Your task to perform on an android device: turn on location history Image 0: 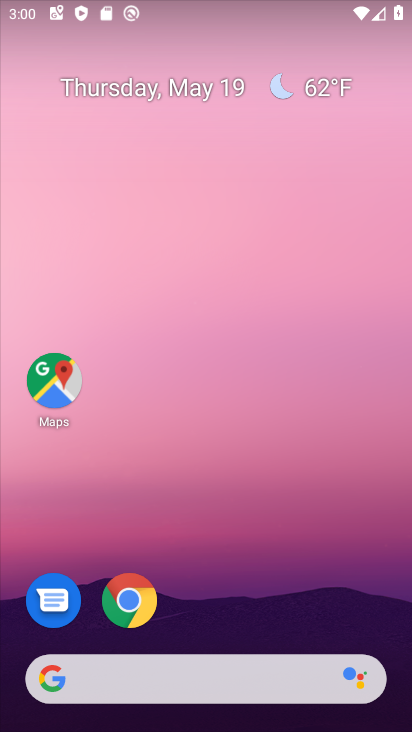
Step 0: drag from (190, 722) to (293, 150)
Your task to perform on an android device: turn on location history Image 1: 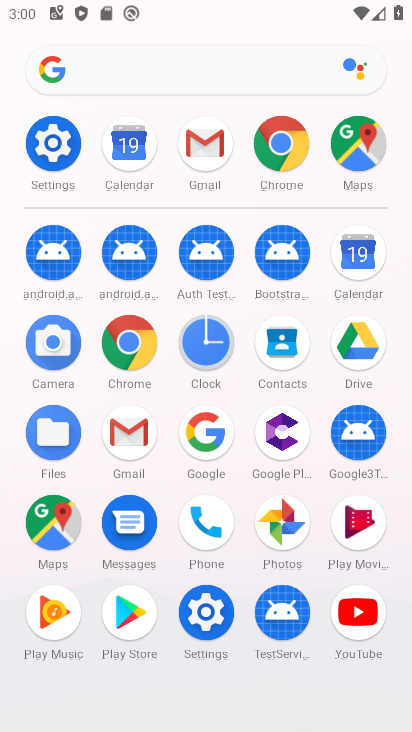
Step 1: click (35, 145)
Your task to perform on an android device: turn on location history Image 2: 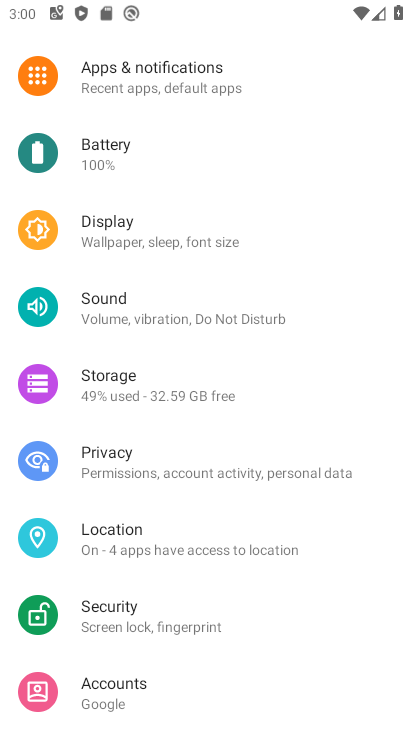
Step 2: click (73, 544)
Your task to perform on an android device: turn on location history Image 3: 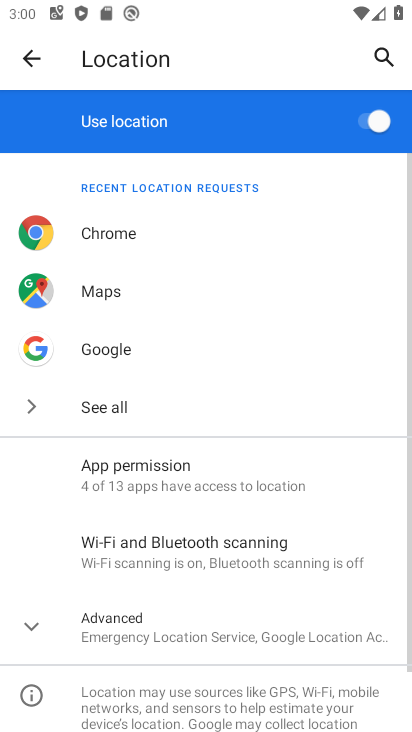
Step 3: click (138, 630)
Your task to perform on an android device: turn on location history Image 4: 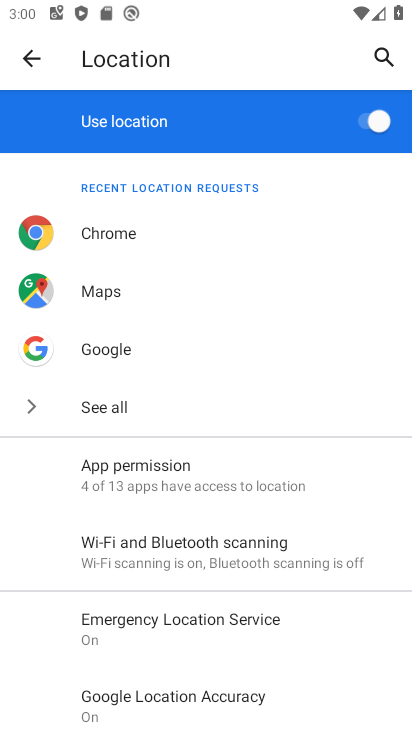
Step 4: drag from (73, 574) to (232, 329)
Your task to perform on an android device: turn on location history Image 5: 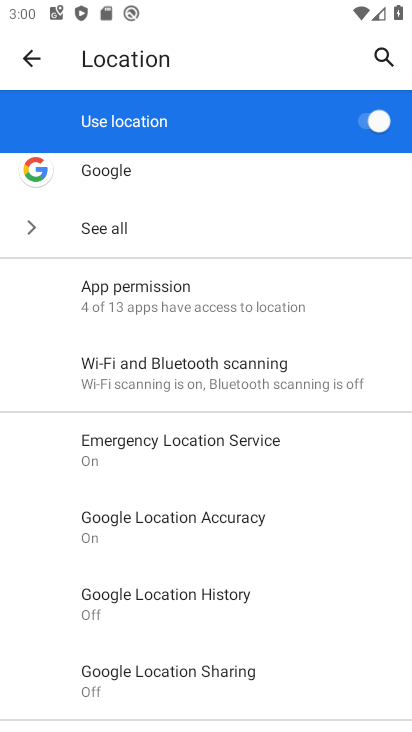
Step 5: click (224, 584)
Your task to perform on an android device: turn on location history Image 6: 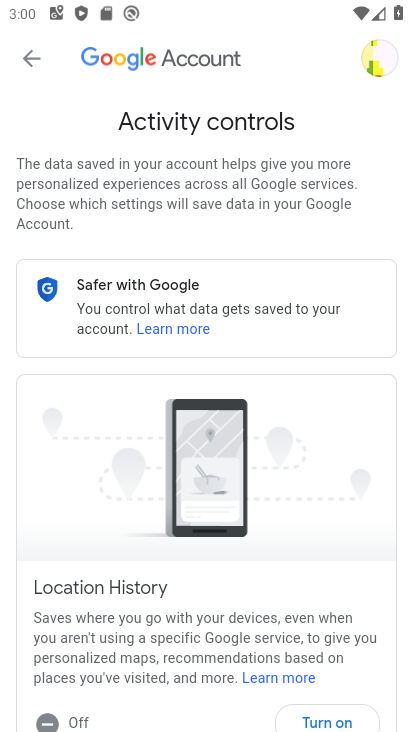
Step 6: drag from (3, 601) to (297, 99)
Your task to perform on an android device: turn on location history Image 7: 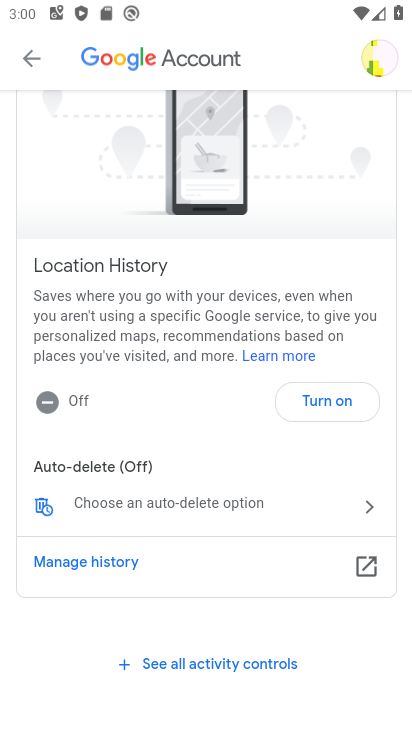
Step 7: click (333, 398)
Your task to perform on an android device: turn on location history Image 8: 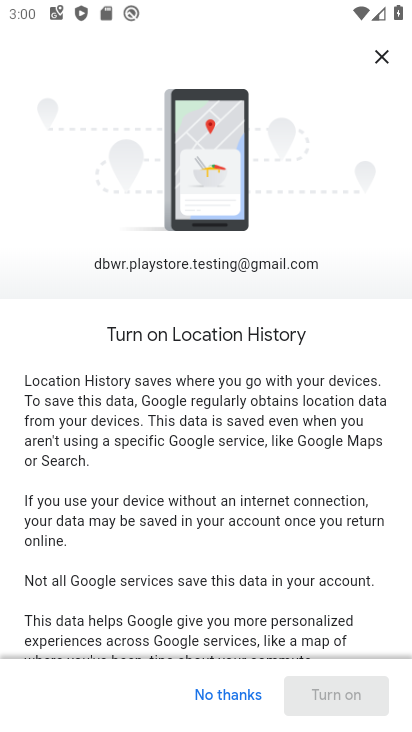
Step 8: drag from (53, 567) to (319, 135)
Your task to perform on an android device: turn on location history Image 9: 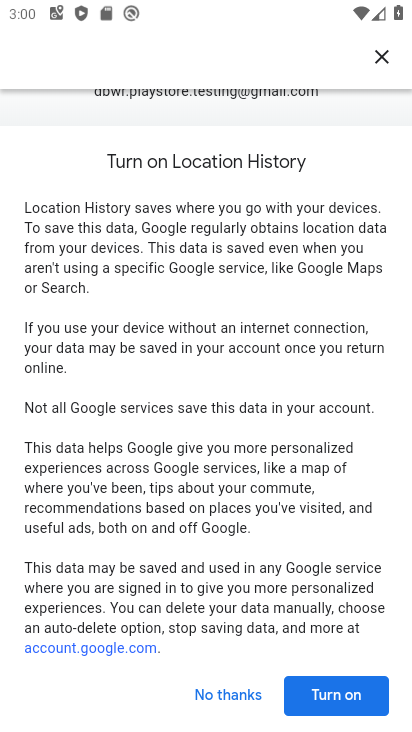
Step 9: click (363, 721)
Your task to perform on an android device: turn on location history Image 10: 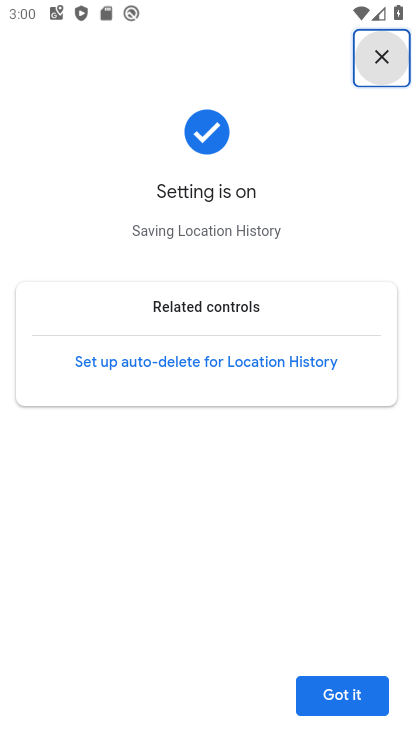
Step 10: click (333, 708)
Your task to perform on an android device: turn on location history Image 11: 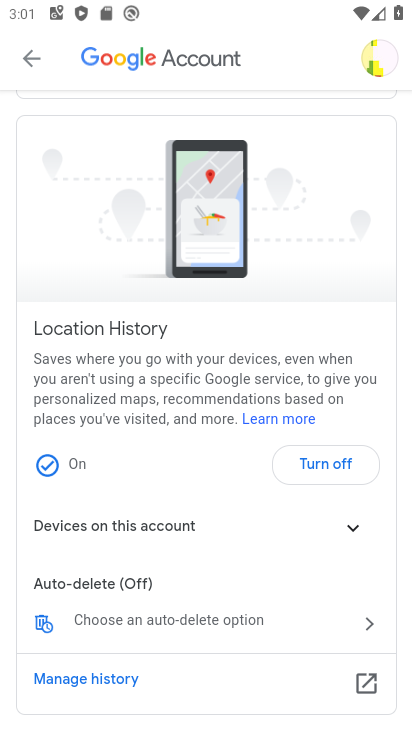
Step 11: task complete